Your task to perform on an android device: Open settings on Google Maps Image 0: 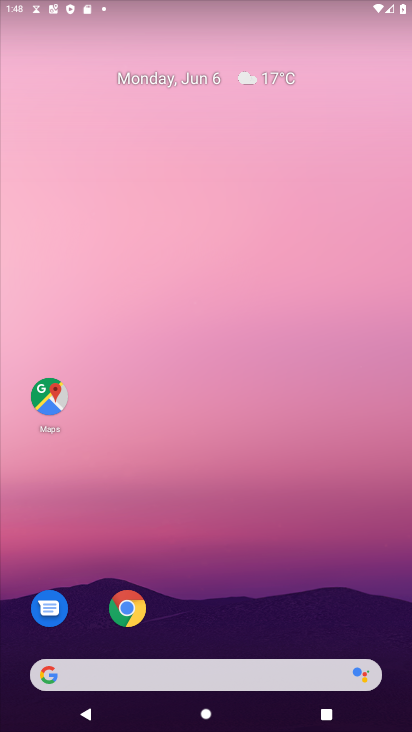
Step 0: drag from (314, 606) to (368, 146)
Your task to perform on an android device: Open settings on Google Maps Image 1: 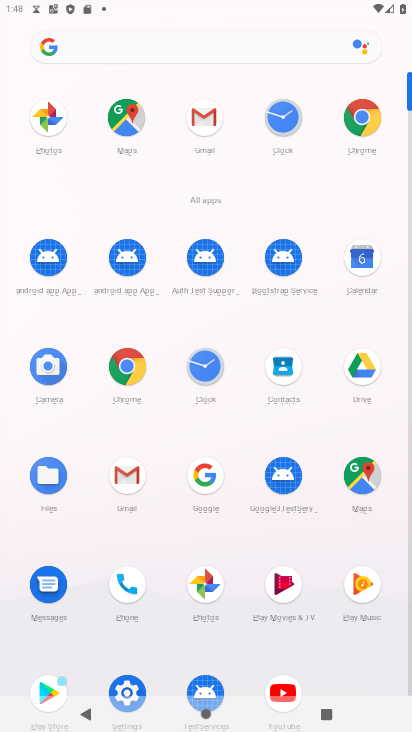
Step 1: drag from (362, 672) to (375, 206)
Your task to perform on an android device: Open settings on Google Maps Image 2: 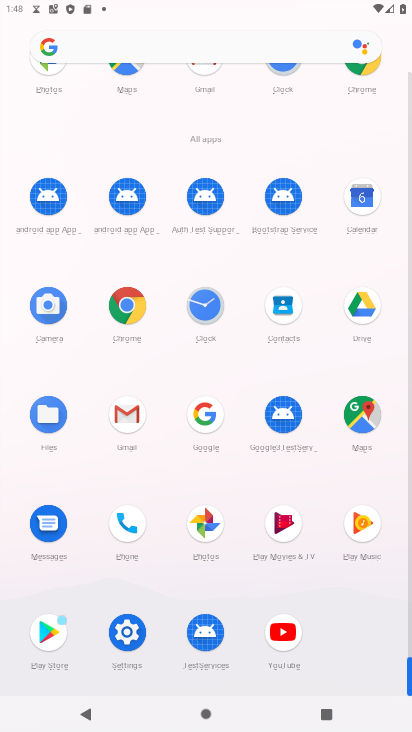
Step 2: click (359, 414)
Your task to perform on an android device: Open settings on Google Maps Image 3: 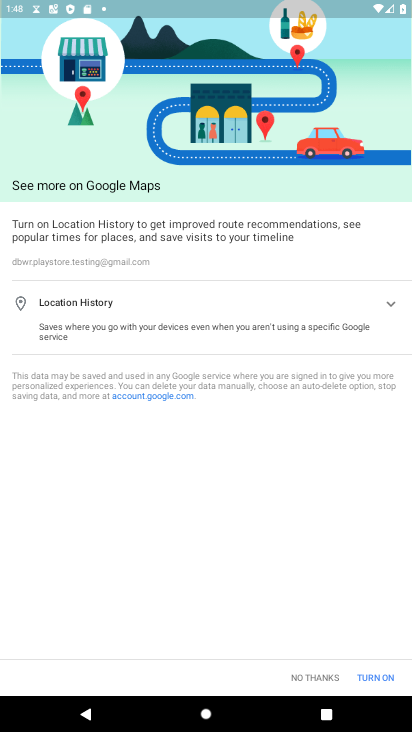
Step 3: task complete